Your task to perform on an android device: Do I have any events today? Image 0: 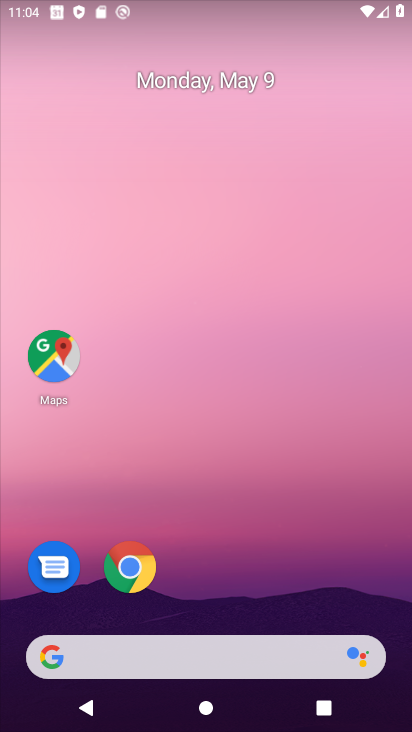
Step 0: drag from (400, 624) to (305, 173)
Your task to perform on an android device: Do I have any events today? Image 1: 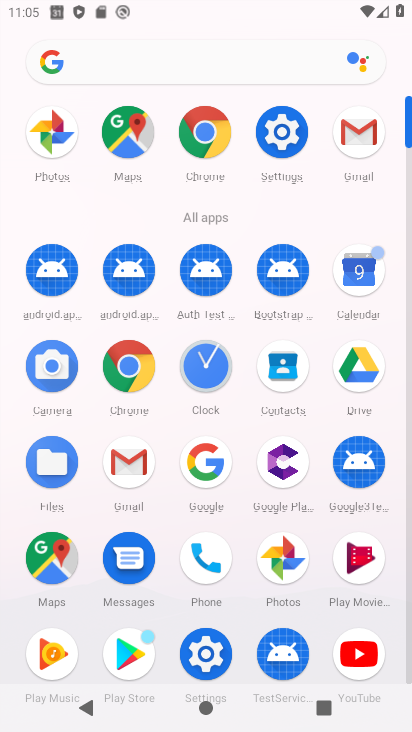
Step 1: click (353, 283)
Your task to perform on an android device: Do I have any events today? Image 2: 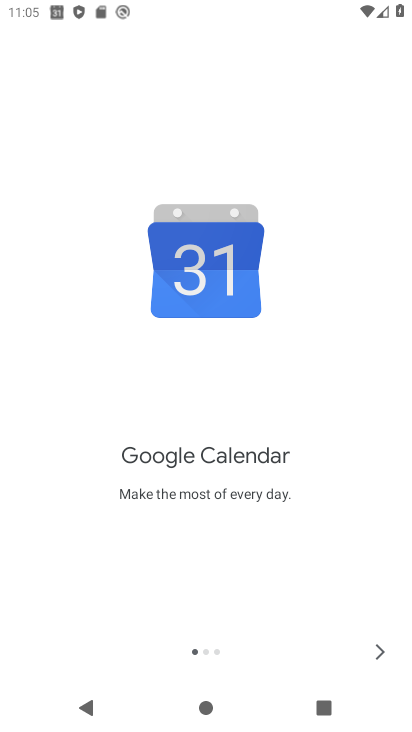
Step 2: click (392, 651)
Your task to perform on an android device: Do I have any events today? Image 3: 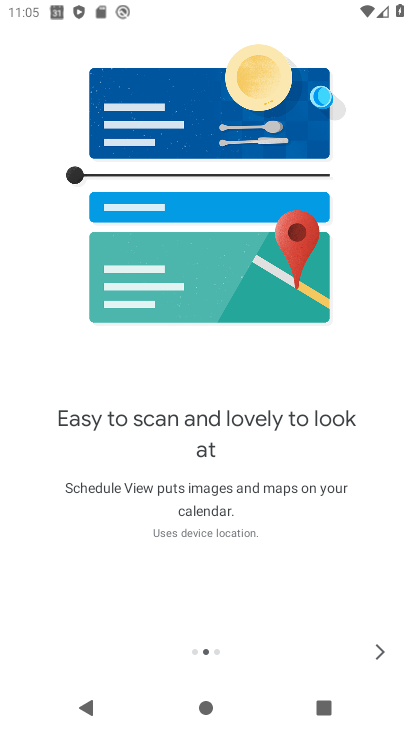
Step 3: click (384, 644)
Your task to perform on an android device: Do I have any events today? Image 4: 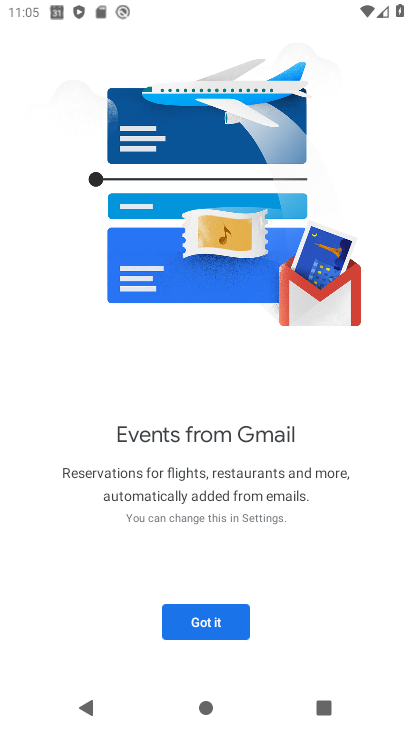
Step 4: click (384, 644)
Your task to perform on an android device: Do I have any events today? Image 5: 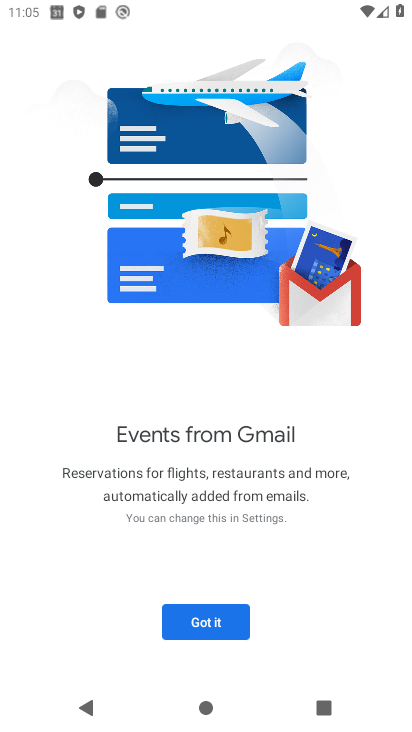
Step 5: click (214, 617)
Your task to perform on an android device: Do I have any events today? Image 6: 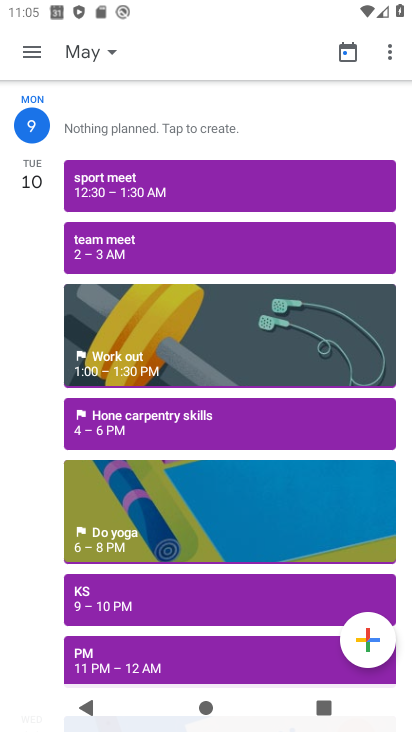
Step 6: click (81, 55)
Your task to perform on an android device: Do I have any events today? Image 7: 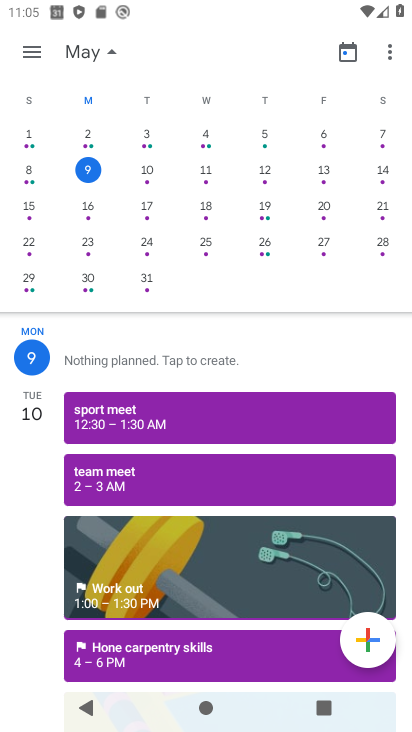
Step 7: click (126, 360)
Your task to perform on an android device: Do I have any events today? Image 8: 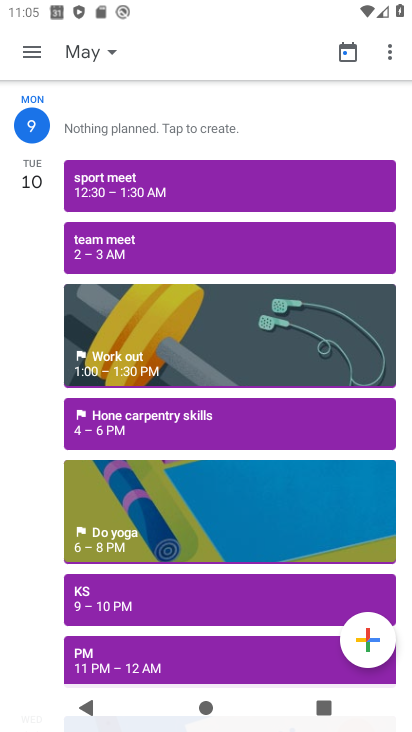
Step 8: task complete